Your task to perform on an android device: Open sound settings Image 0: 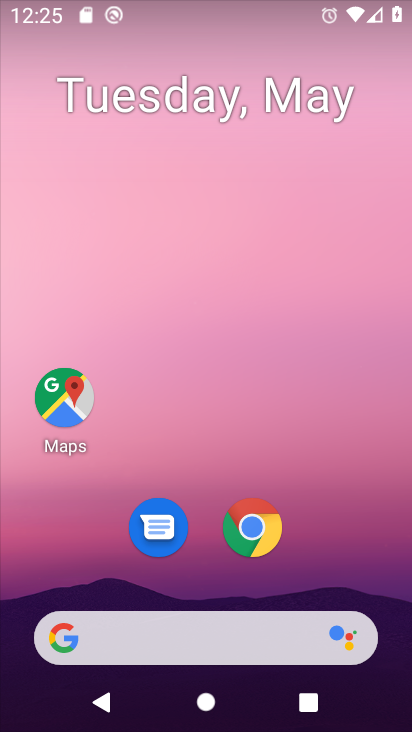
Step 0: drag from (247, 702) to (351, 6)
Your task to perform on an android device: Open sound settings Image 1: 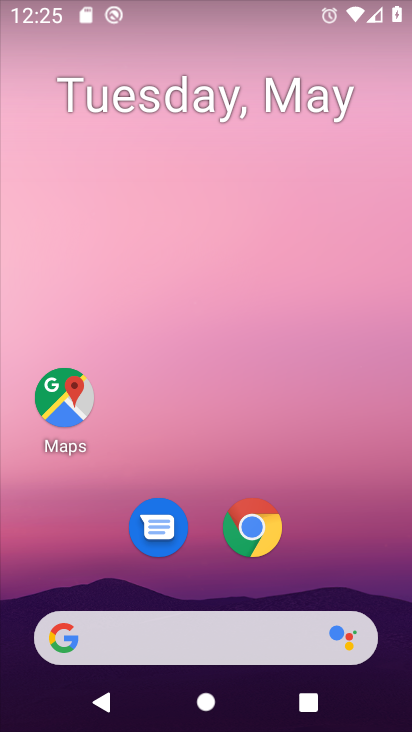
Step 1: drag from (270, 709) to (304, 57)
Your task to perform on an android device: Open sound settings Image 2: 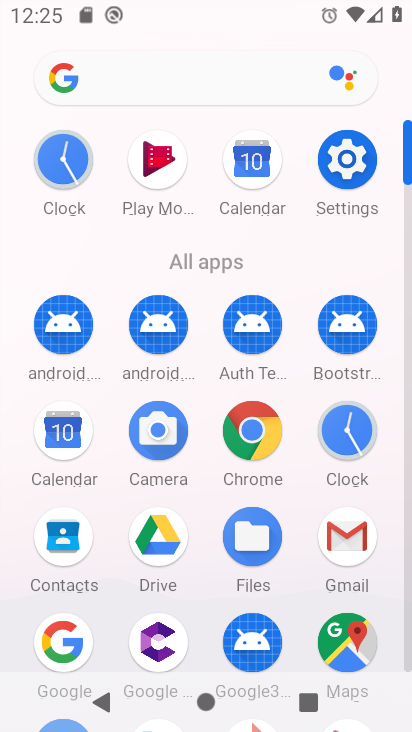
Step 2: click (343, 175)
Your task to perform on an android device: Open sound settings Image 3: 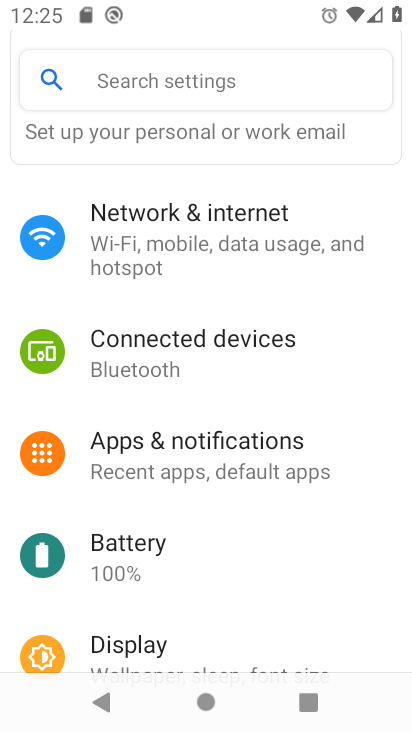
Step 3: drag from (254, 641) to (164, 255)
Your task to perform on an android device: Open sound settings Image 4: 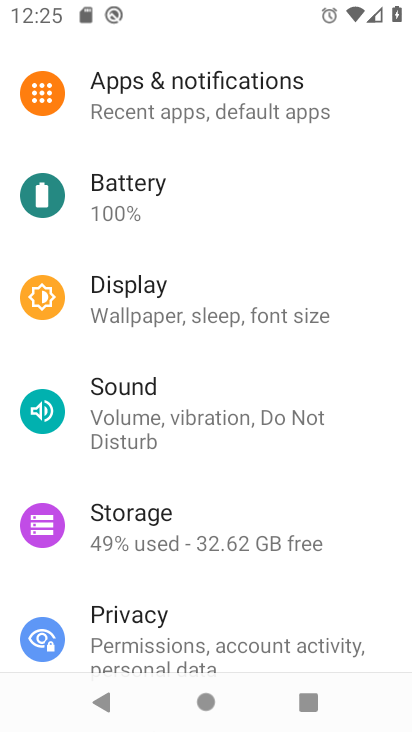
Step 4: click (182, 399)
Your task to perform on an android device: Open sound settings Image 5: 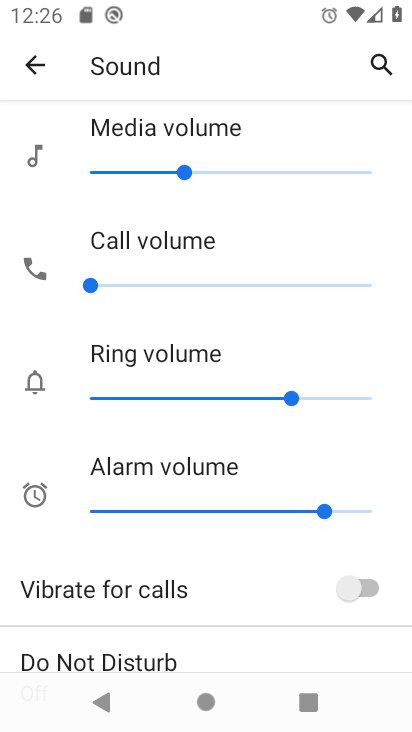
Step 5: task complete